Your task to perform on an android device: What is the price of a 12' ladder at Lowes? Image 0: 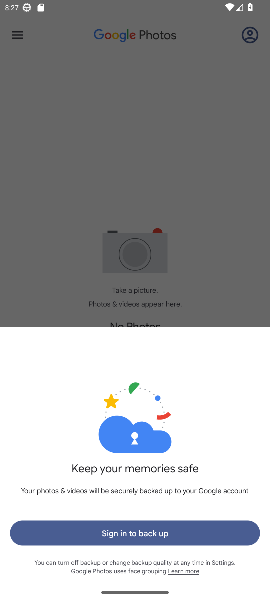
Step 0: press home button
Your task to perform on an android device: What is the price of a 12' ladder at Lowes? Image 1: 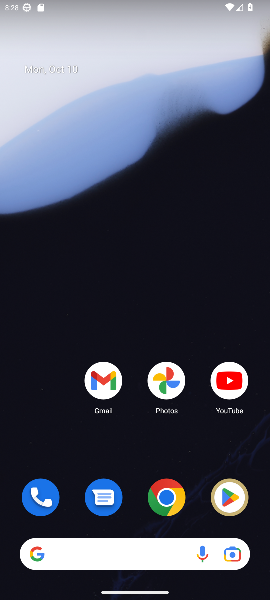
Step 1: drag from (139, 454) to (160, 163)
Your task to perform on an android device: What is the price of a 12' ladder at Lowes? Image 2: 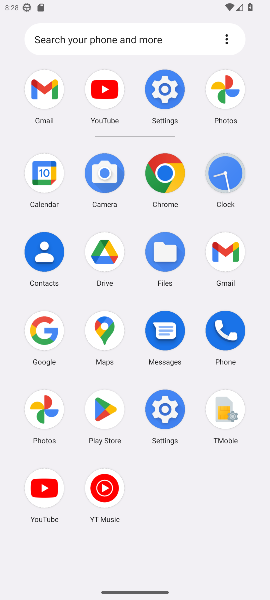
Step 2: click (50, 325)
Your task to perform on an android device: What is the price of a 12' ladder at Lowes? Image 3: 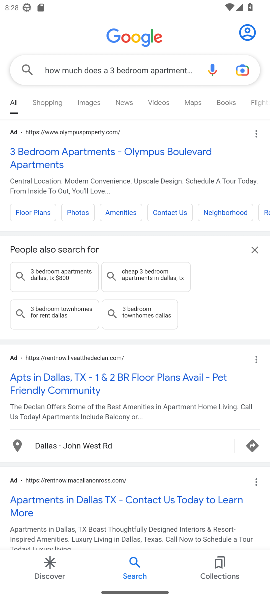
Step 3: click (103, 66)
Your task to perform on an android device: What is the price of a 12' ladder at Lowes? Image 4: 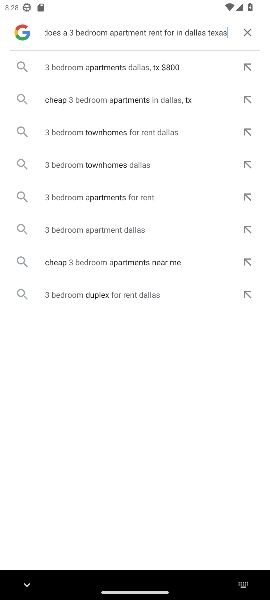
Step 4: click (247, 30)
Your task to perform on an android device: What is the price of a 12' ladder at Lowes? Image 5: 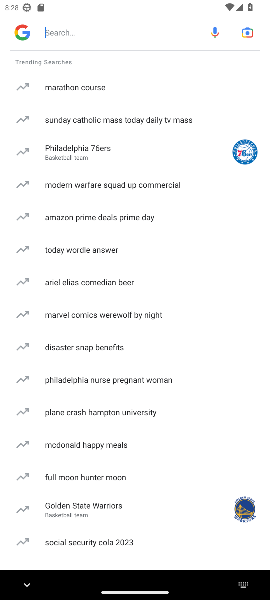
Step 5: click (97, 26)
Your task to perform on an android device: What is the price of a 12' ladder at Lowes? Image 6: 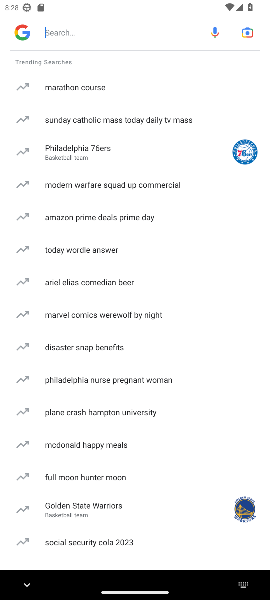
Step 6: type "What is the price of a 12' ladder at Lowes "
Your task to perform on an android device: What is the price of a 12' ladder at Lowes? Image 7: 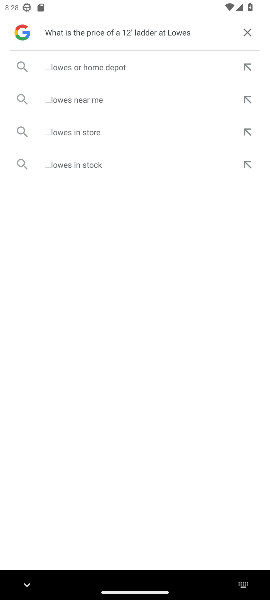
Step 7: click (126, 62)
Your task to perform on an android device: What is the price of a 12' ladder at Lowes? Image 8: 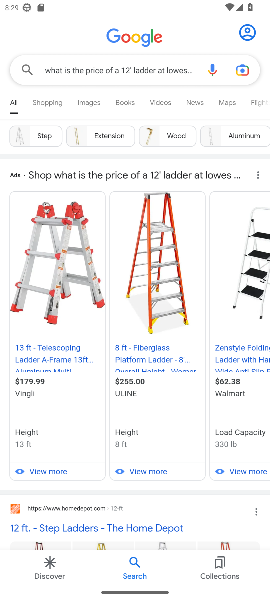
Step 8: task complete